Your task to perform on an android device: change notifications settings Image 0: 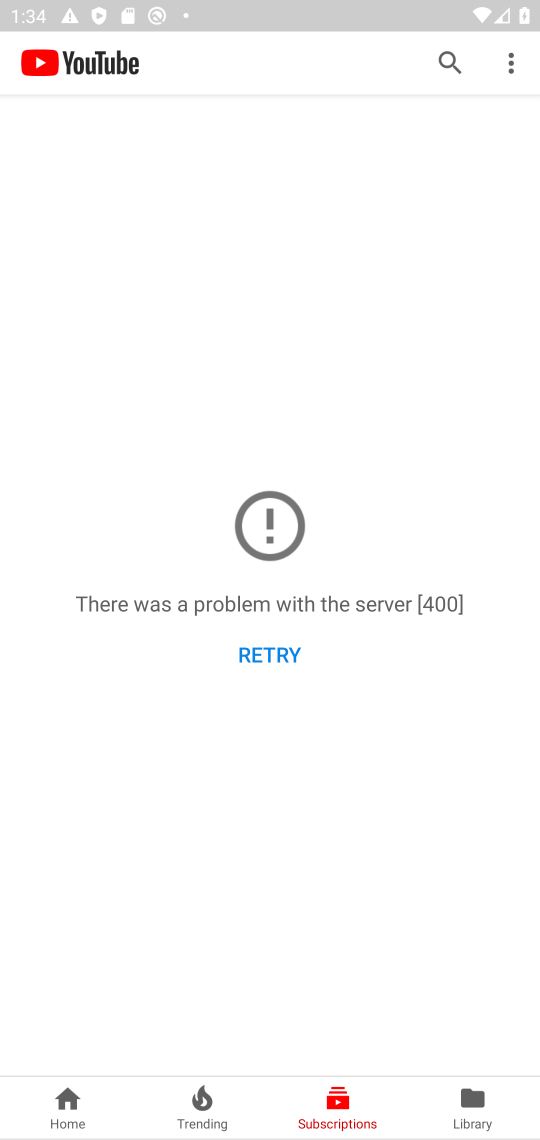
Step 0: press home button
Your task to perform on an android device: change notifications settings Image 1: 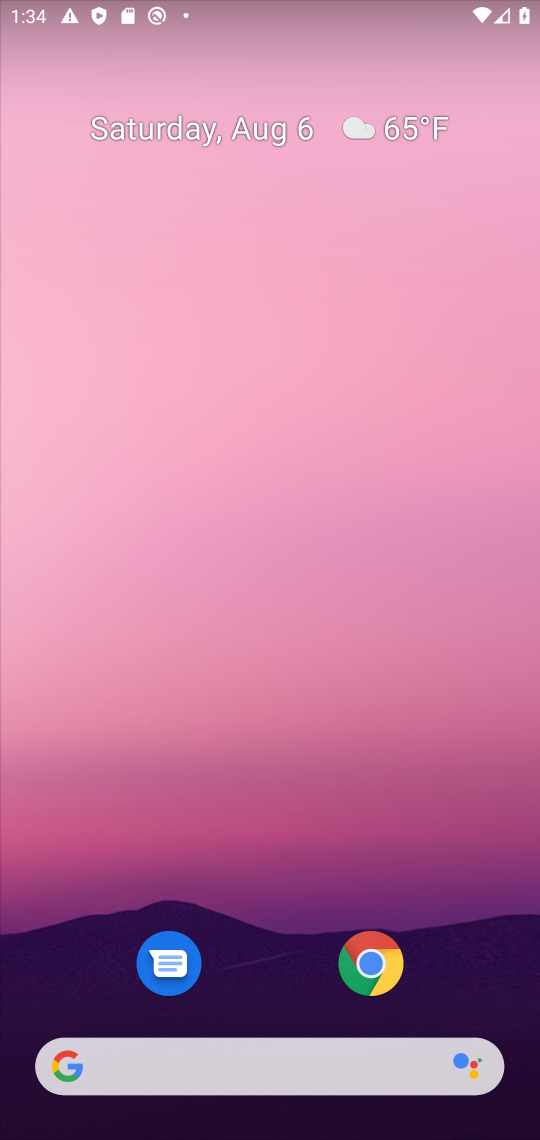
Step 1: drag from (123, 707) to (232, 160)
Your task to perform on an android device: change notifications settings Image 2: 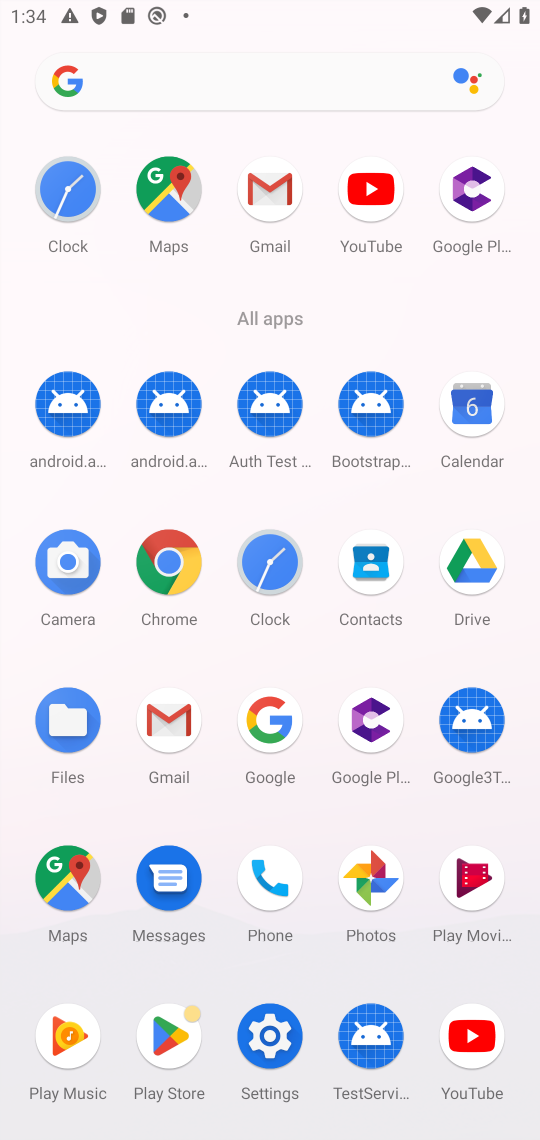
Step 2: click (242, 1012)
Your task to perform on an android device: change notifications settings Image 3: 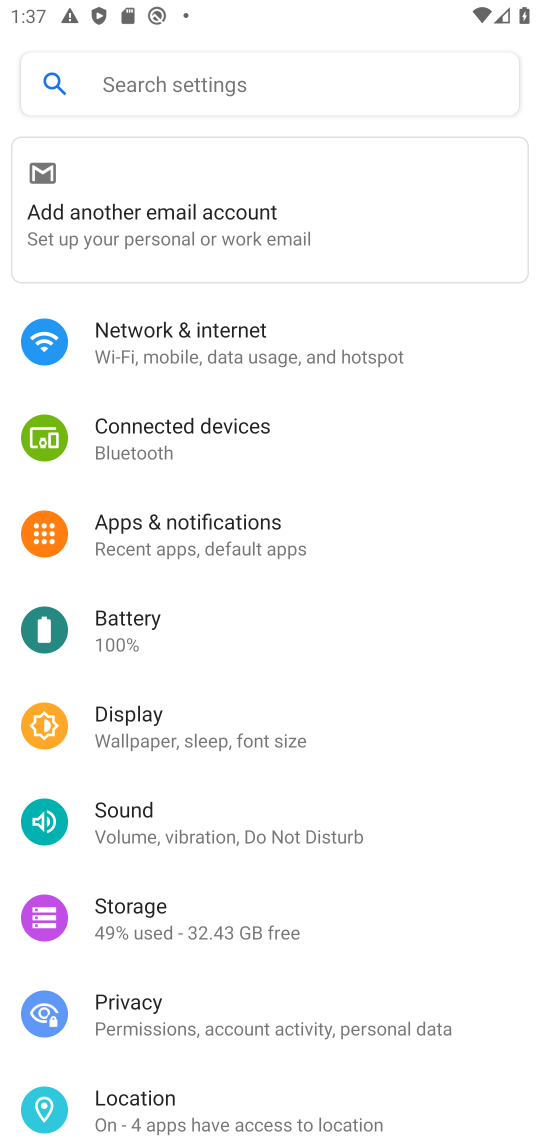
Step 3: click (321, 518)
Your task to perform on an android device: change notifications settings Image 4: 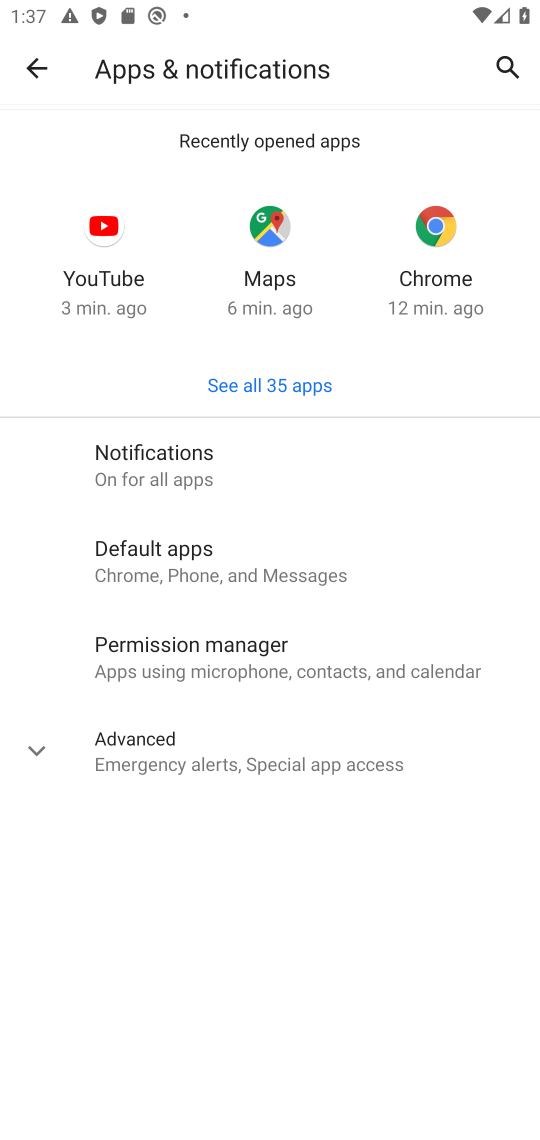
Step 4: task complete